Your task to perform on an android device: Open maps Image 0: 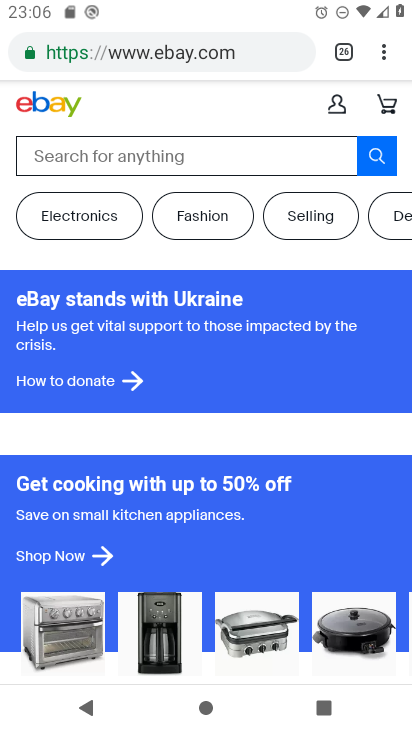
Step 0: press home button
Your task to perform on an android device: Open maps Image 1: 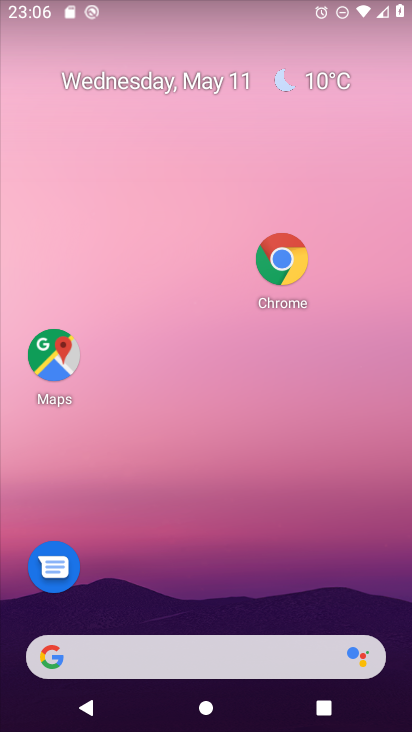
Step 1: click (37, 367)
Your task to perform on an android device: Open maps Image 2: 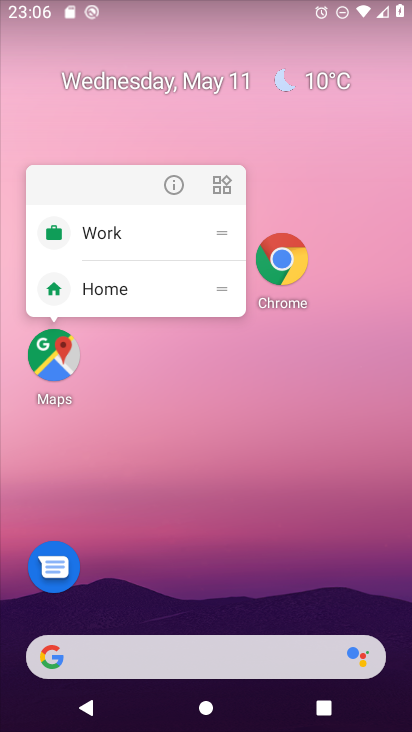
Step 2: click (54, 369)
Your task to perform on an android device: Open maps Image 3: 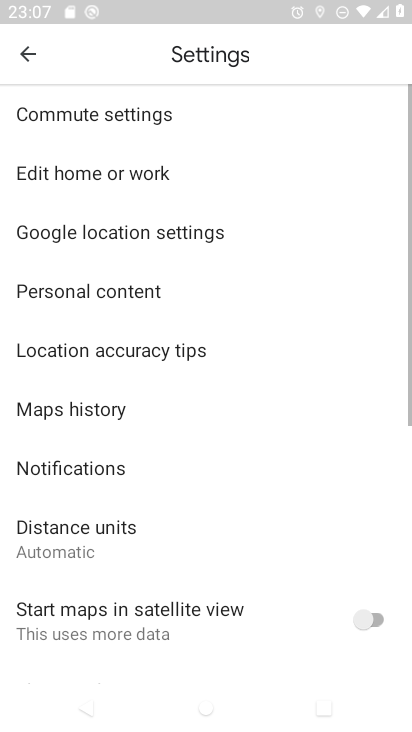
Step 3: click (21, 51)
Your task to perform on an android device: Open maps Image 4: 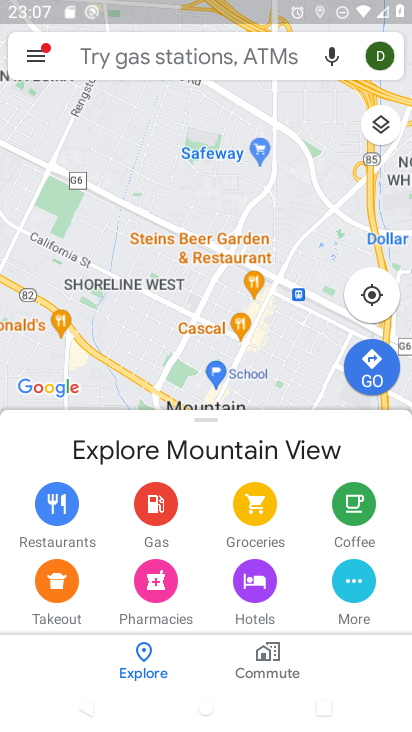
Step 4: task complete